Your task to perform on an android device: What's the weather? Image 0: 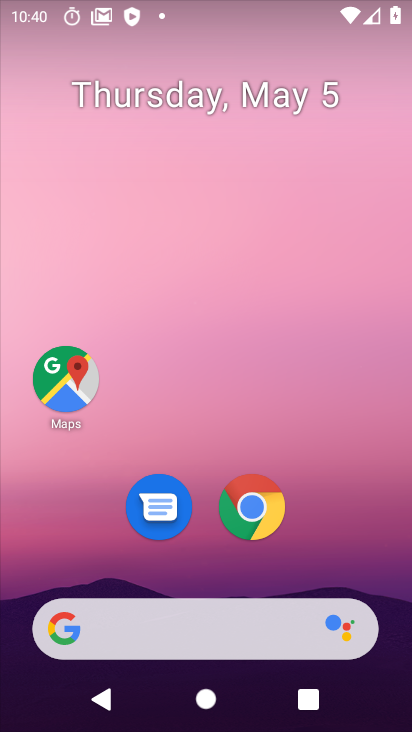
Step 0: click (133, 621)
Your task to perform on an android device: What's the weather? Image 1: 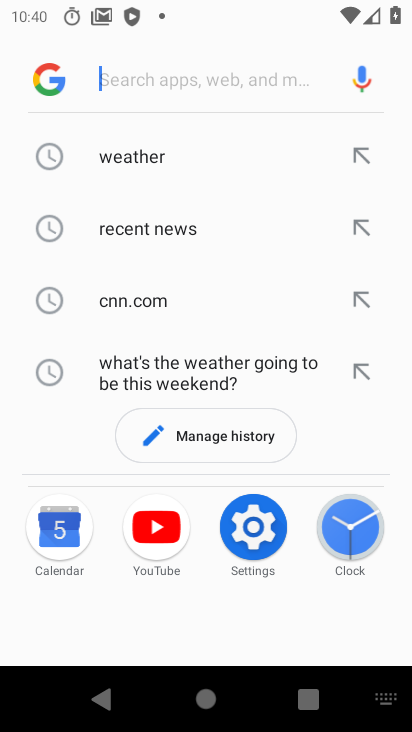
Step 1: click (129, 157)
Your task to perform on an android device: What's the weather? Image 2: 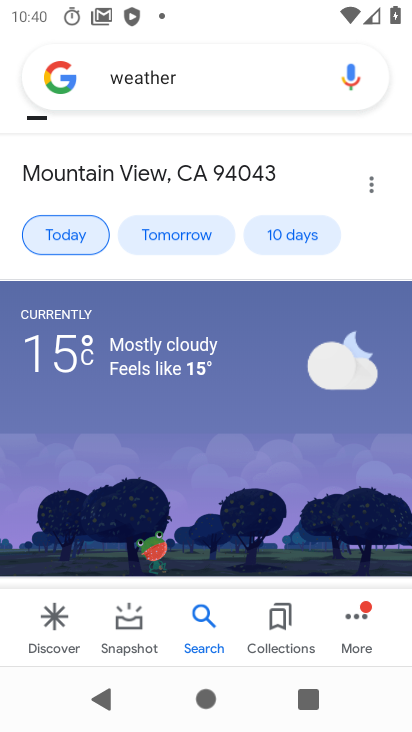
Step 2: task complete